Your task to perform on an android device: Is it going to rain this weekend? Image 0: 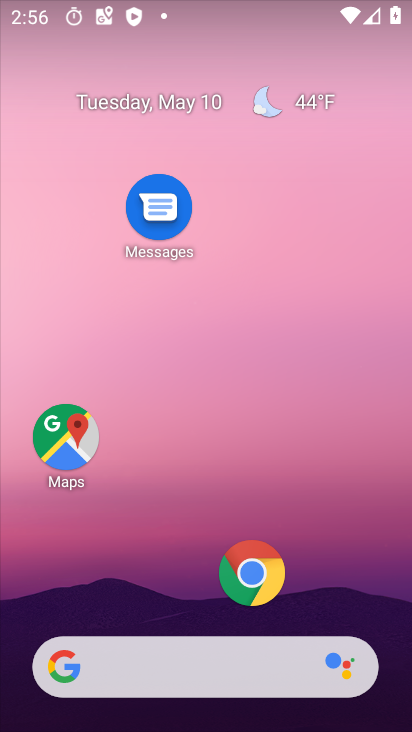
Step 0: drag from (187, 583) to (244, 180)
Your task to perform on an android device: Is it going to rain this weekend? Image 1: 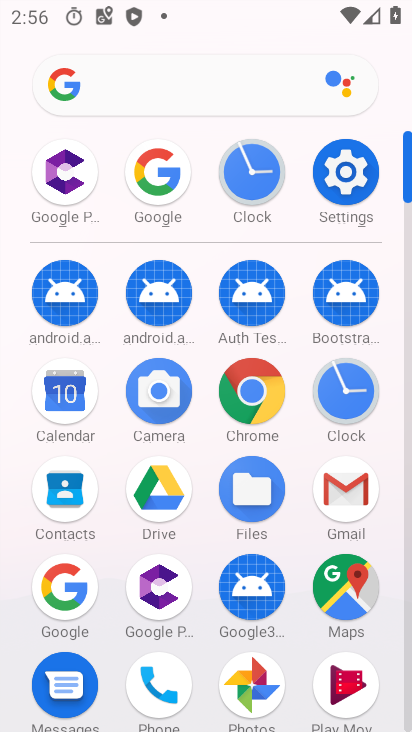
Step 1: click (73, 602)
Your task to perform on an android device: Is it going to rain this weekend? Image 2: 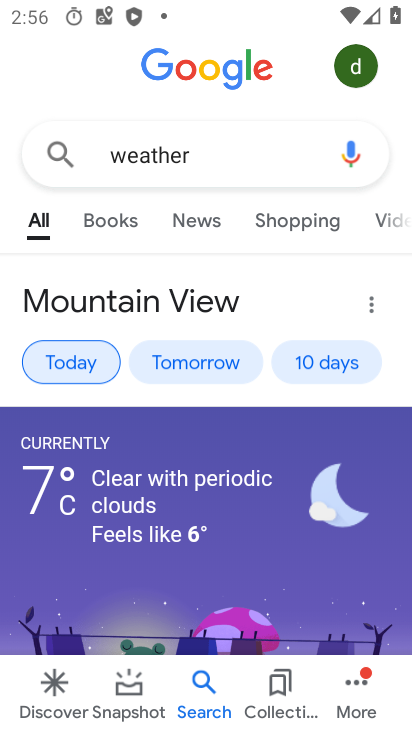
Step 2: click (329, 370)
Your task to perform on an android device: Is it going to rain this weekend? Image 3: 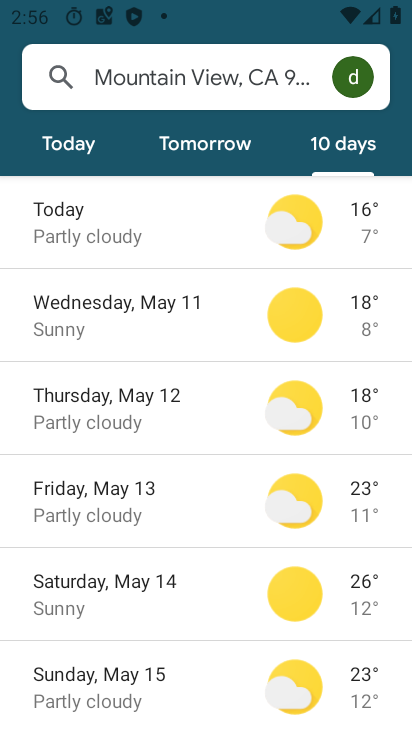
Step 3: task complete